Your task to perform on an android device: turn on location history Image 0: 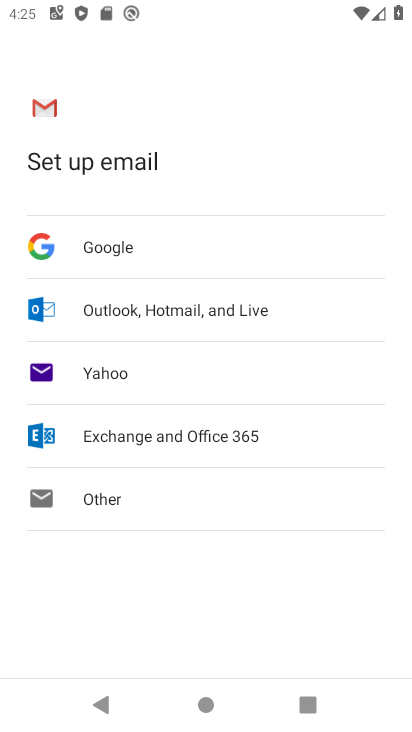
Step 0: press back button
Your task to perform on an android device: turn on location history Image 1: 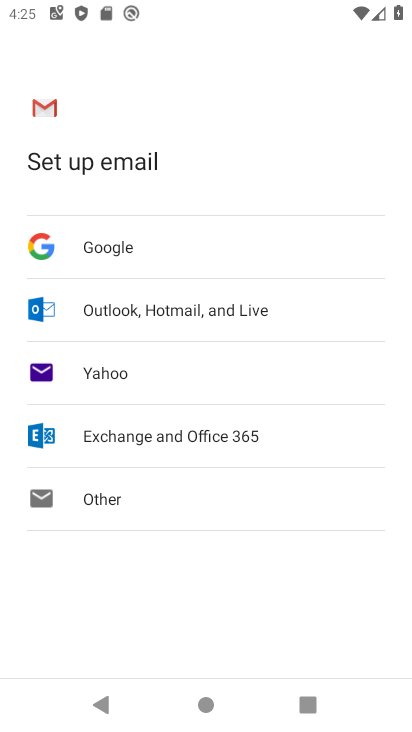
Step 1: press back button
Your task to perform on an android device: turn on location history Image 2: 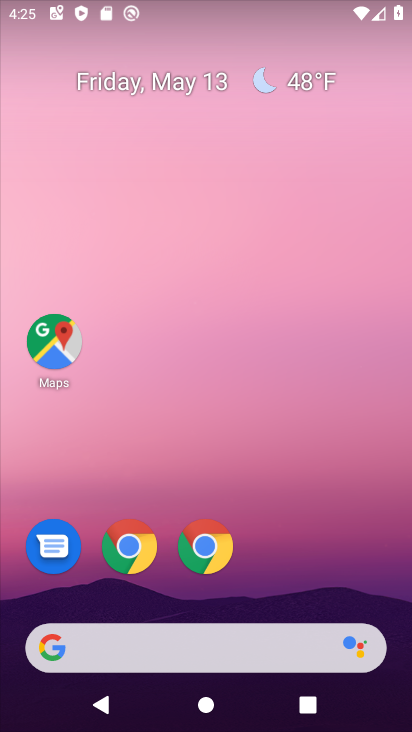
Step 2: drag from (187, 258) to (144, 70)
Your task to perform on an android device: turn on location history Image 3: 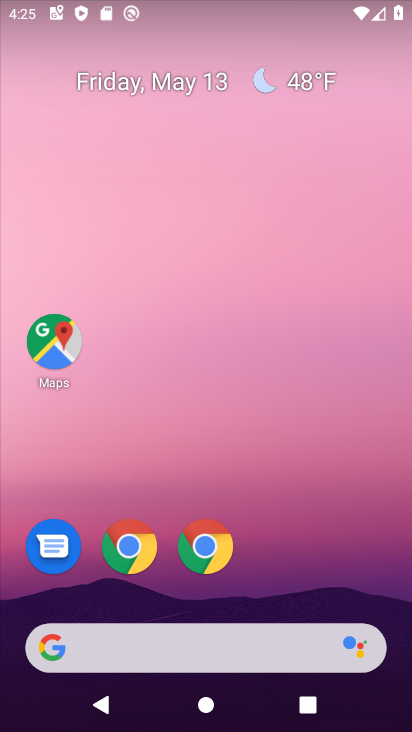
Step 3: drag from (144, 549) to (164, 77)
Your task to perform on an android device: turn on location history Image 4: 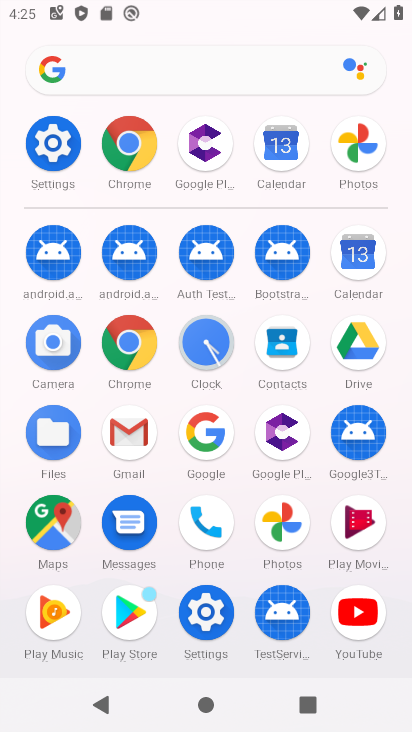
Step 4: click (44, 524)
Your task to perform on an android device: turn on location history Image 5: 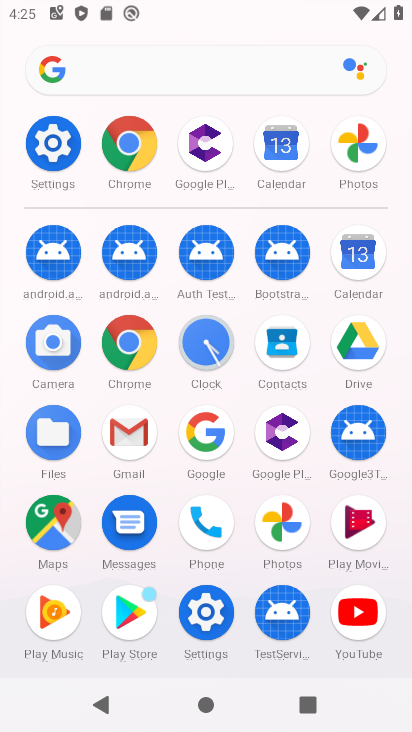
Step 5: click (47, 522)
Your task to perform on an android device: turn on location history Image 6: 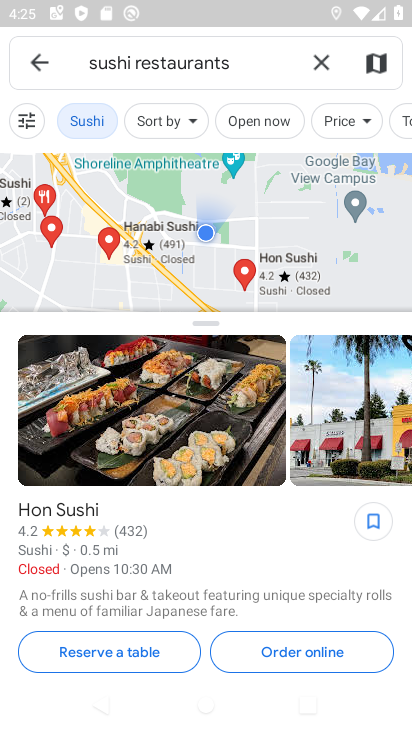
Step 6: click (46, 60)
Your task to perform on an android device: turn on location history Image 7: 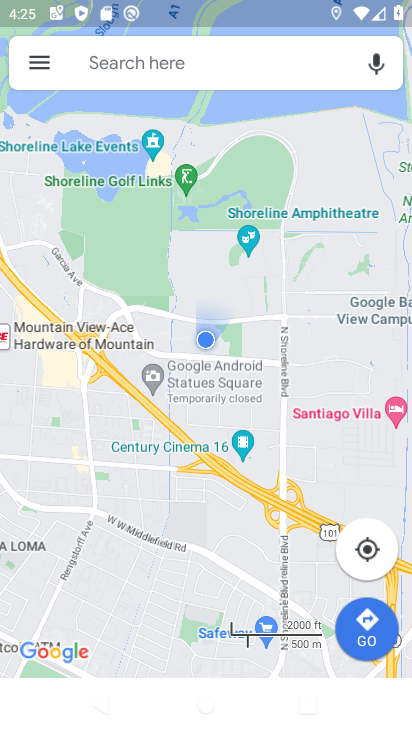
Step 7: click (53, 74)
Your task to perform on an android device: turn on location history Image 8: 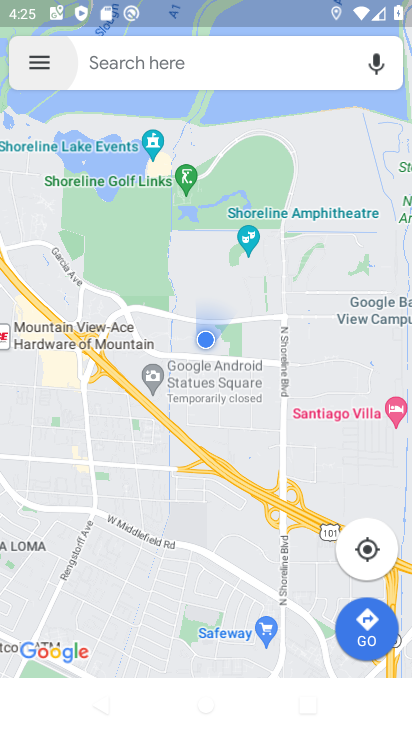
Step 8: click (53, 74)
Your task to perform on an android device: turn on location history Image 9: 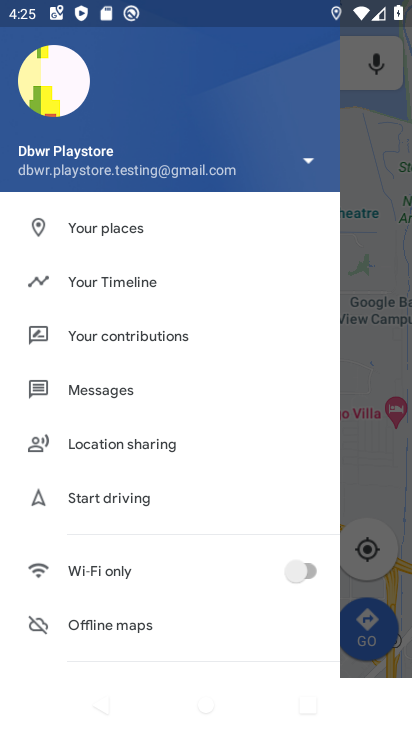
Step 9: click (115, 280)
Your task to perform on an android device: turn on location history Image 10: 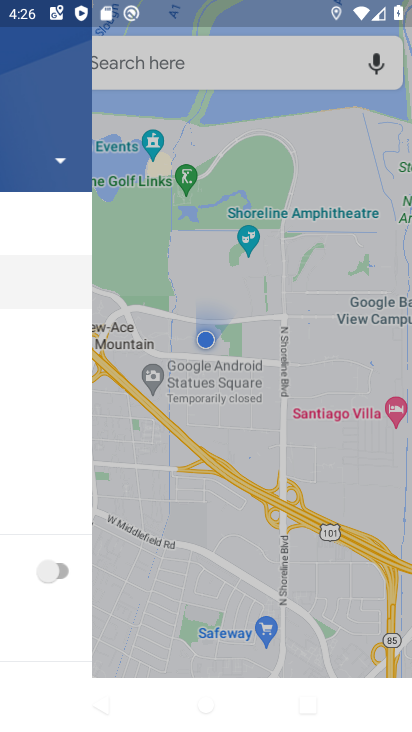
Step 10: click (118, 278)
Your task to perform on an android device: turn on location history Image 11: 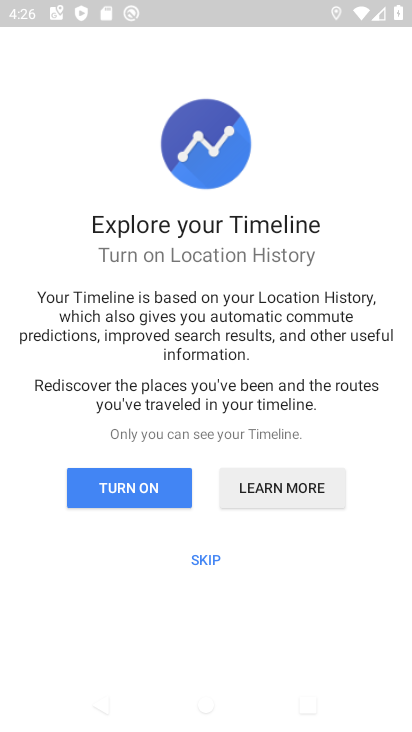
Step 11: click (152, 489)
Your task to perform on an android device: turn on location history Image 12: 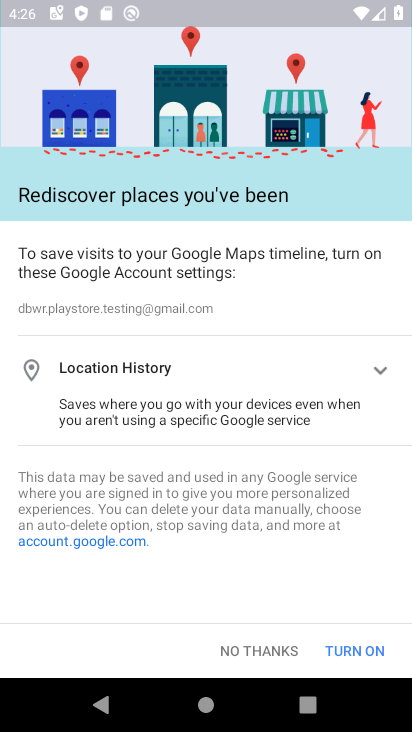
Step 12: click (360, 645)
Your task to perform on an android device: turn on location history Image 13: 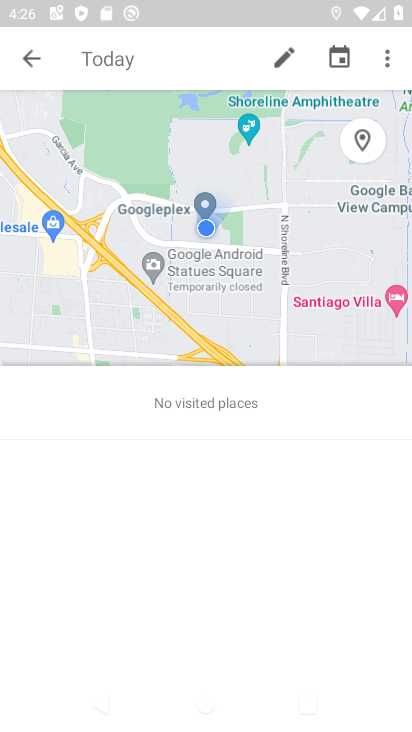
Step 13: click (378, 55)
Your task to perform on an android device: turn on location history Image 14: 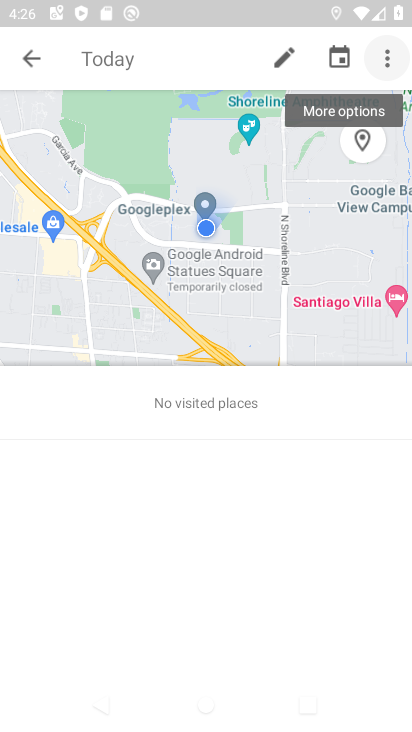
Step 14: click (378, 55)
Your task to perform on an android device: turn on location history Image 15: 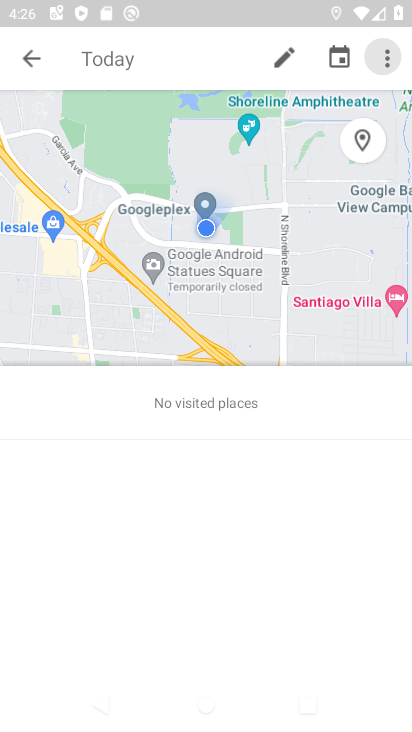
Step 15: click (378, 55)
Your task to perform on an android device: turn on location history Image 16: 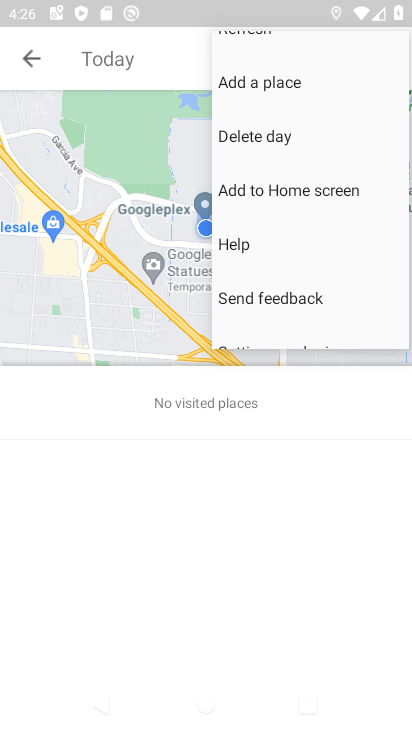
Step 16: click (378, 55)
Your task to perform on an android device: turn on location history Image 17: 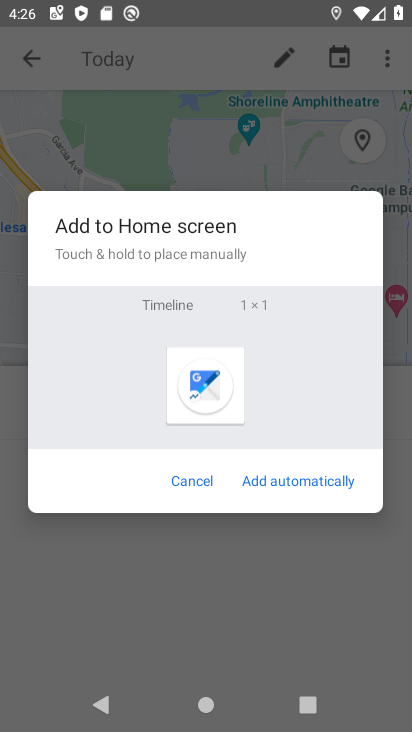
Step 17: click (209, 479)
Your task to perform on an android device: turn on location history Image 18: 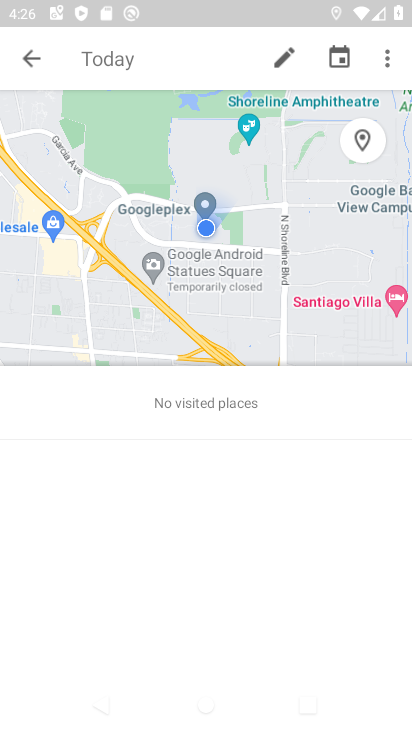
Step 18: click (386, 68)
Your task to perform on an android device: turn on location history Image 19: 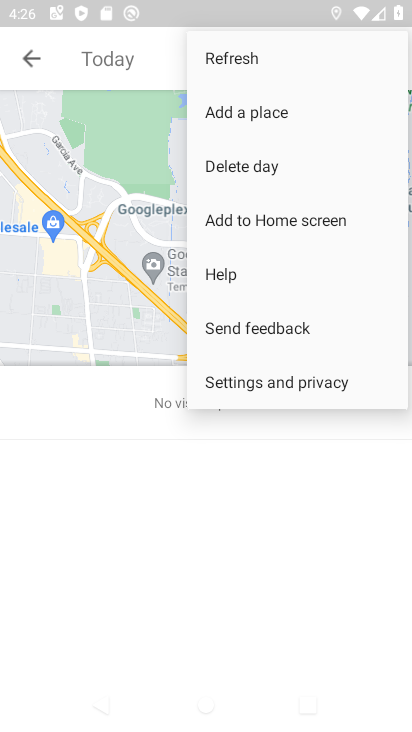
Step 19: click (274, 391)
Your task to perform on an android device: turn on location history Image 20: 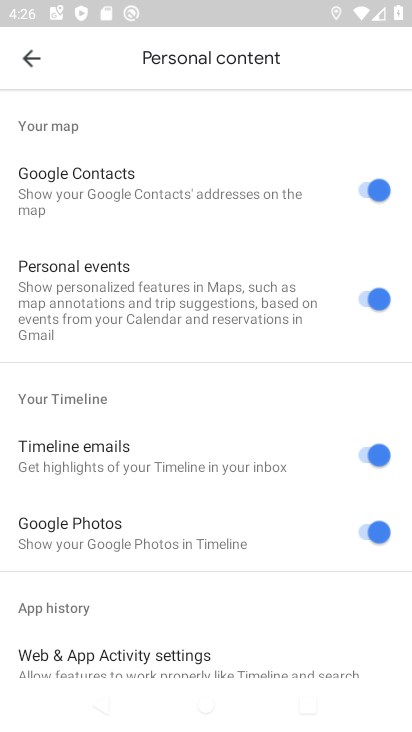
Step 20: drag from (115, 427) to (87, 254)
Your task to perform on an android device: turn on location history Image 21: 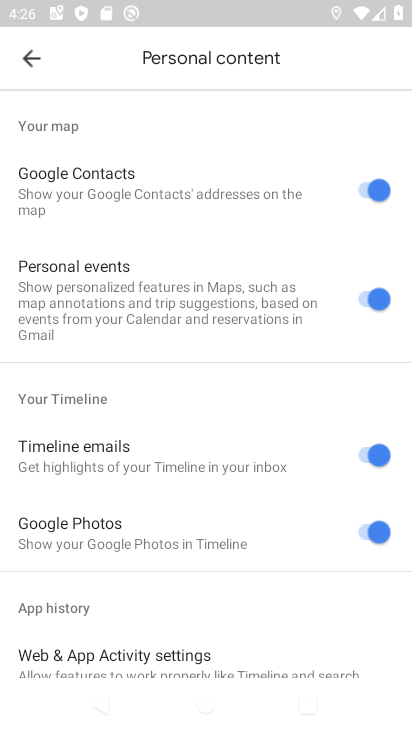
Step 21: click (167, 509)
Your task to perform on an android device: turn on location history Image 22: 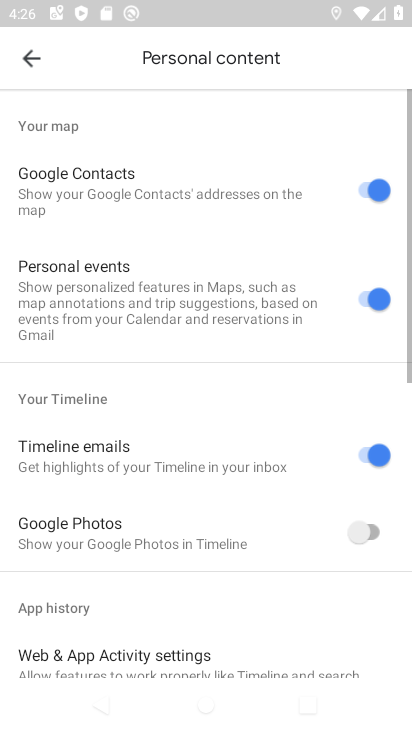
Step 22: click (28, 61)
Your task to perform on an android device: turn on location history Image 23: 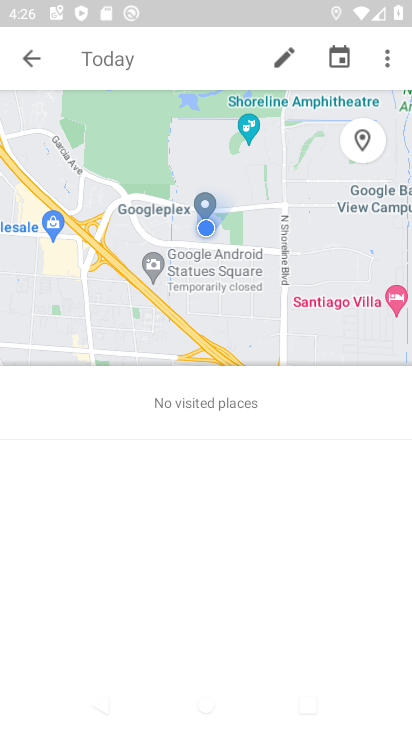
Step 23: click (386, 67)
Your task to perform on an android device: turn on location history Image 24: 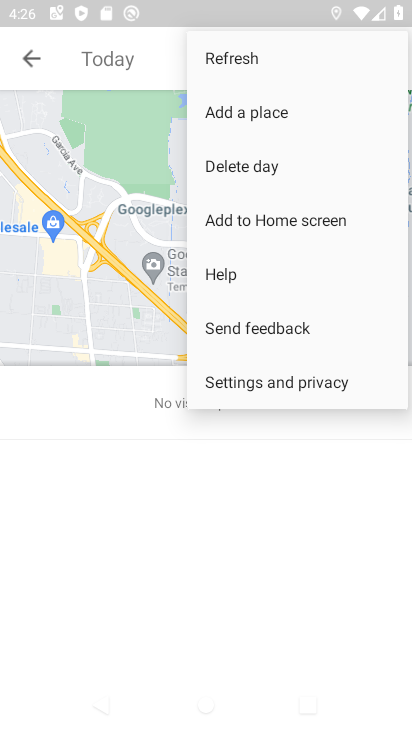
Step 24: click (248, 387)
Your task to perform on an android device: turn on location history Image 25: 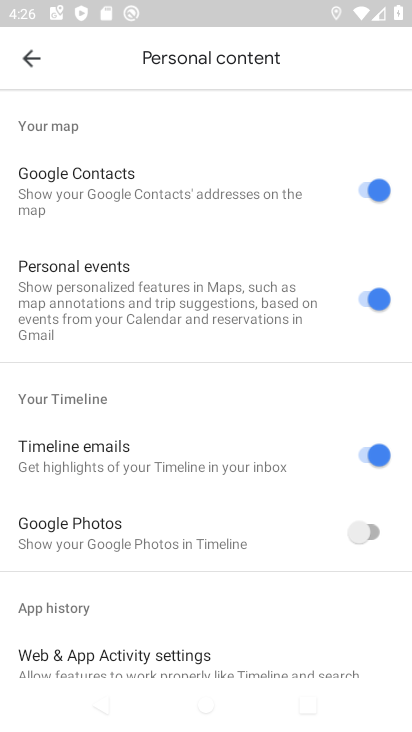
Step 25: drag from (80, 138) to (186, 515)
Your task to perform on an android device: turn on location history Image 26: 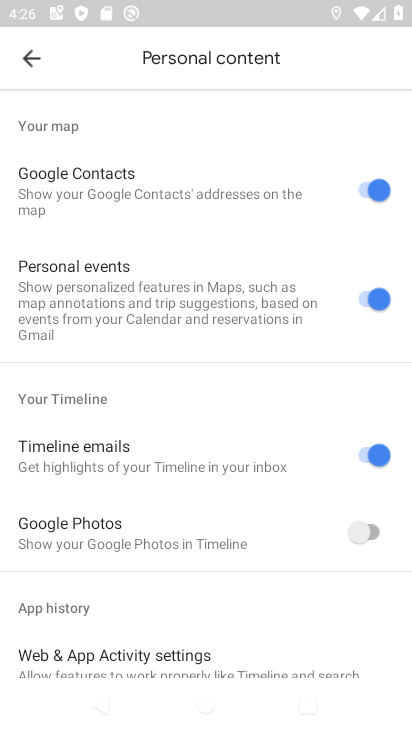
Step 26: drag from (128, 299) to (128, 473)
Your task to perform on an android device: turn on location history Image 27: 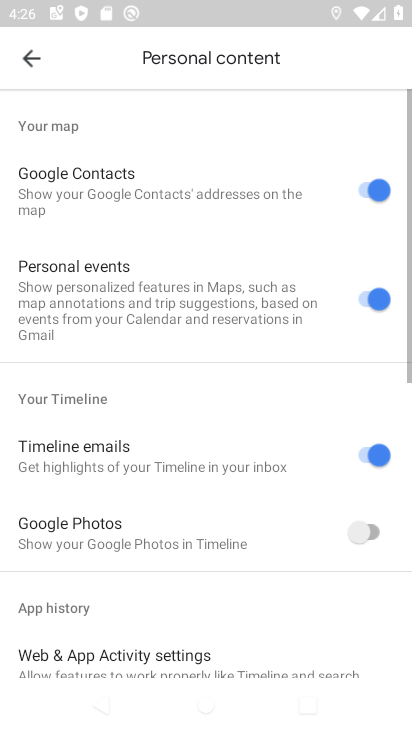
Step 27: click (26, 46)
Your task to perform on an android device: turn on location history Image 28: 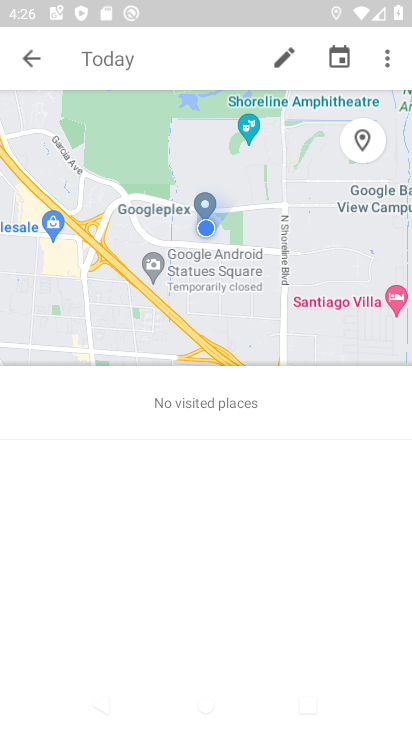
Step 28: click (392, 59)
Your task to perform on an android device: turn on location history Image 29: 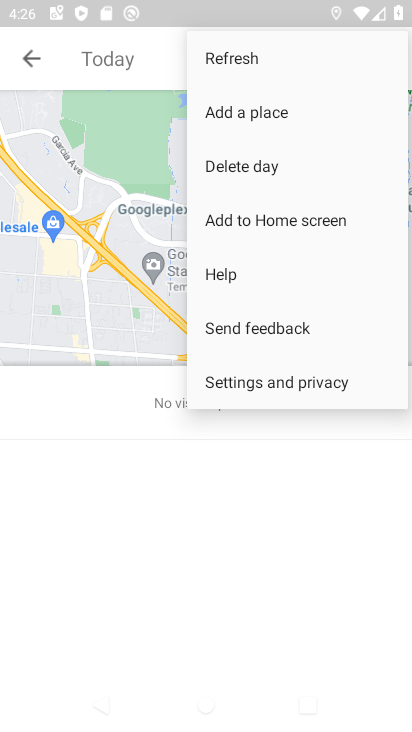
Step 29: click (252, 376)
Your task to perform on an android device: turn on location history Image 30: 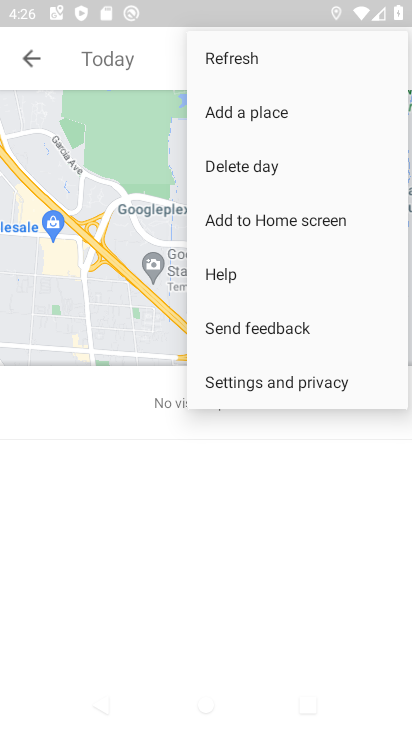
Step 30: click (252, 378)
Your task to perform on an android device: turn on location history Image 31: 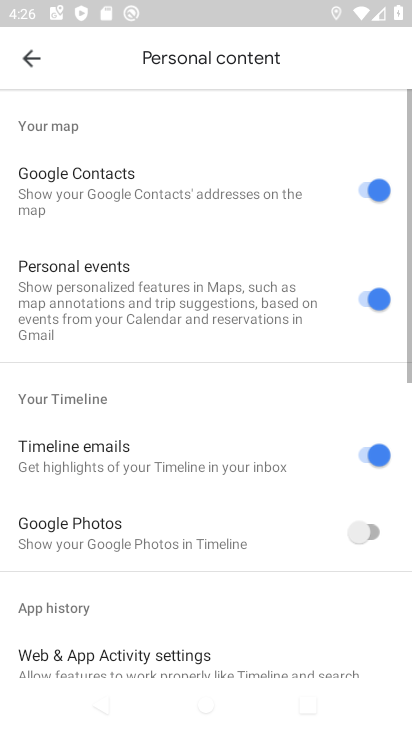
Step 31: drag from (155, 550) to (222, 11)
Your task to perform on an android device: turn on location history Image 32: 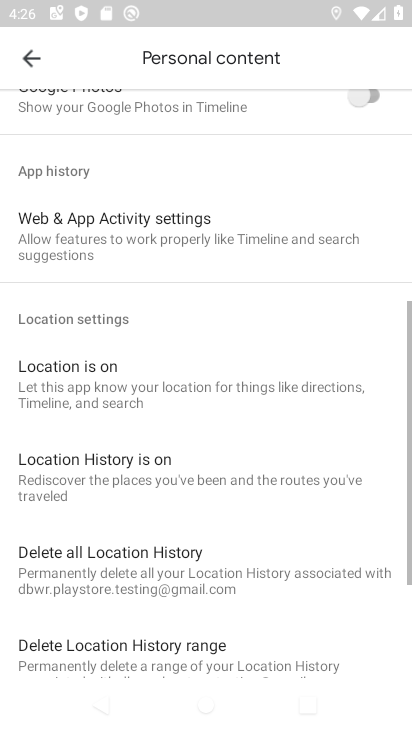
Step 32: drag from (189, 460) to (189, 0)
Your task to perform on an android device: turn on location history Image 33: 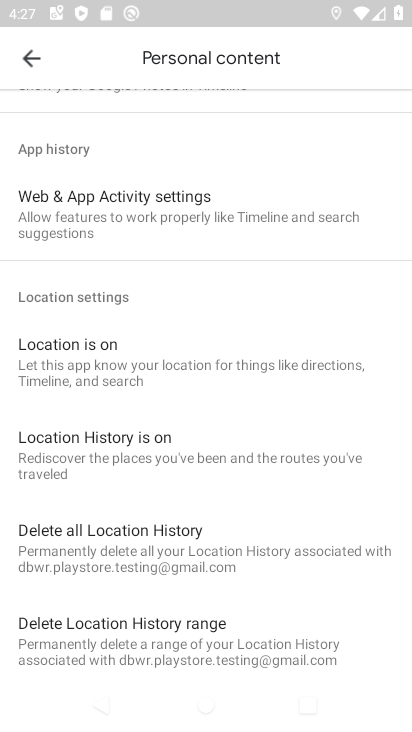
Step 33: click (73, 440)
Your task to perform on an android device: turn on location history Image 34: 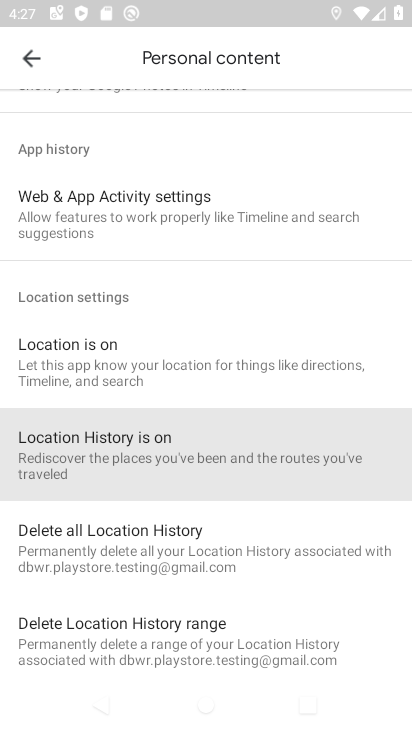
Step 34: click (72, 440)
Your task to perform on an android device: turn on location history Image 35: 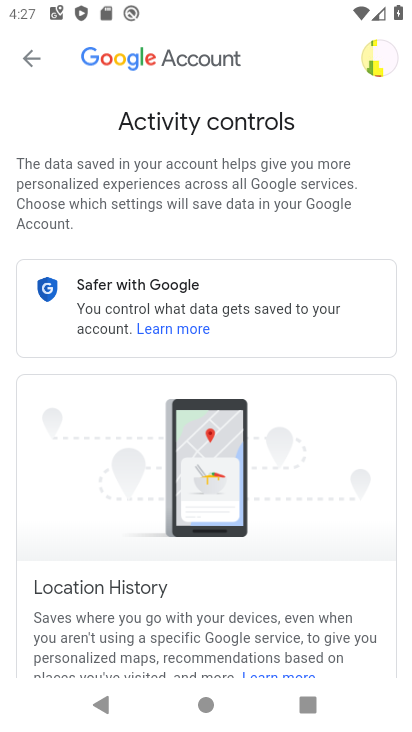
Step 35: drag from (184, 475) to (140, 231)
Your task to perform on an android device: turn on location history Image 36: 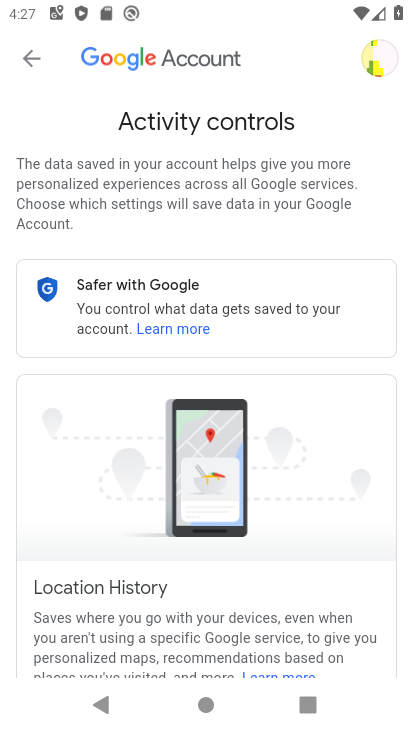
Step 36: drag from (211, 457) to (173, 126)
Your task to perform on an android device: turn on location history Image 37: 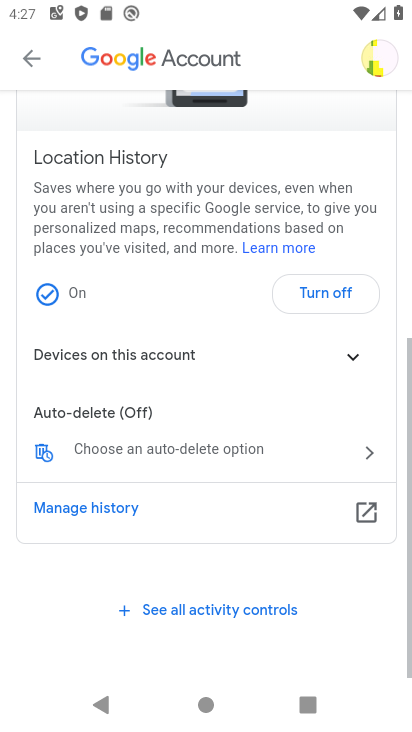
Step 37: drag from (232, 449) to (227, 29)
Your task to perform on an android device: turn on location history Image 38: 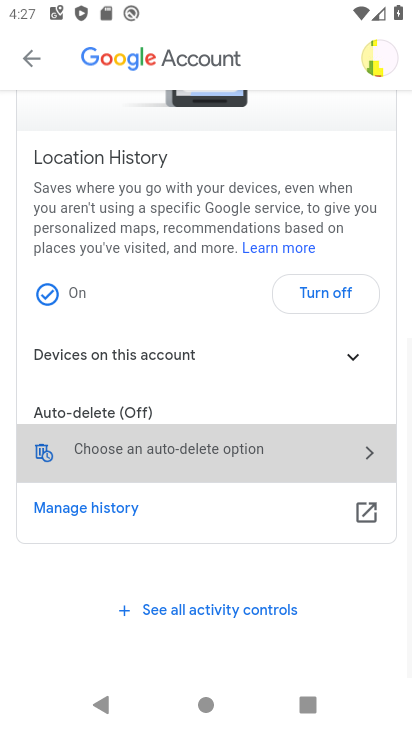
Step 38: click (289, 118)
Your task to perform on an android device: turn on location history Image 39: 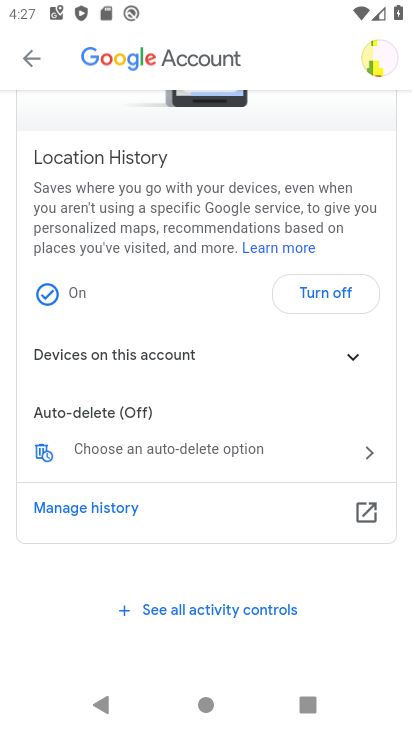
Step 39: click (52, 301)
Your task to perform on an android device: turn on location history Image 40: 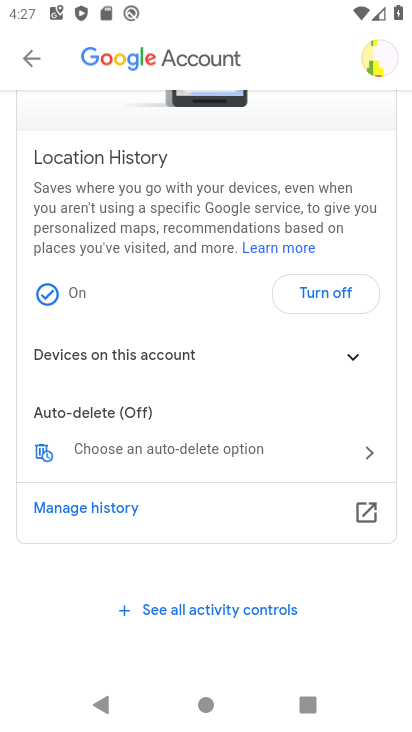
Step 40: task complete